Your task to perform on an android device: Is it going to rain tomorrow? Image 0: 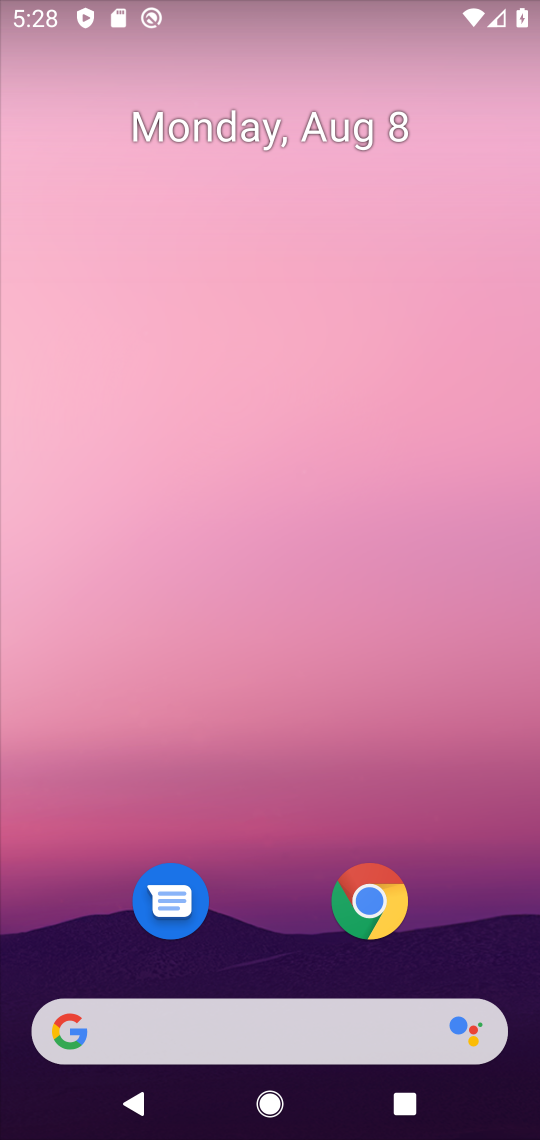
Step 0: click (380, 915)
Your task to perform on an android device: Is it going to rain tomorrow? Image 1: 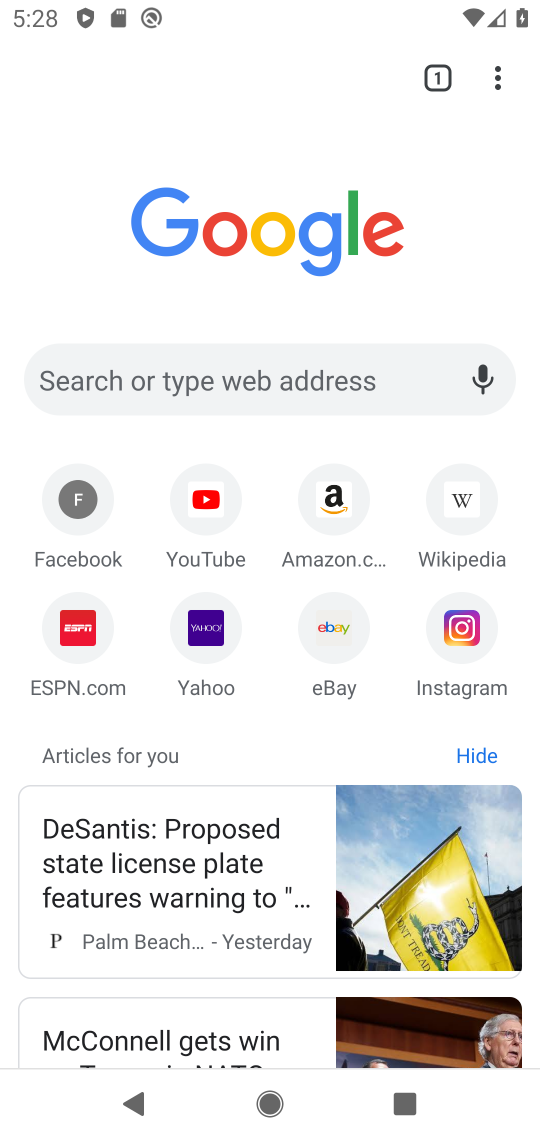
Step 1: click (90, 383)
Your task to perform on an android device: Is it going to rain tomorrow? Image 2: 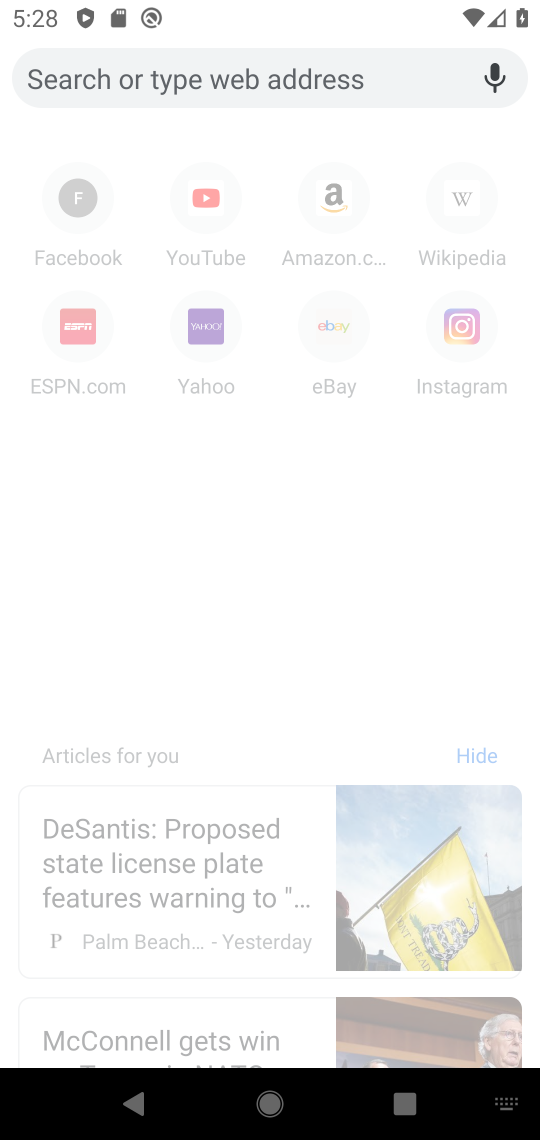
Step 2: type "Is it going to rain tomorrow?"
Your task to perform on an android device: Is it going to rain tomorrow? Image 3: 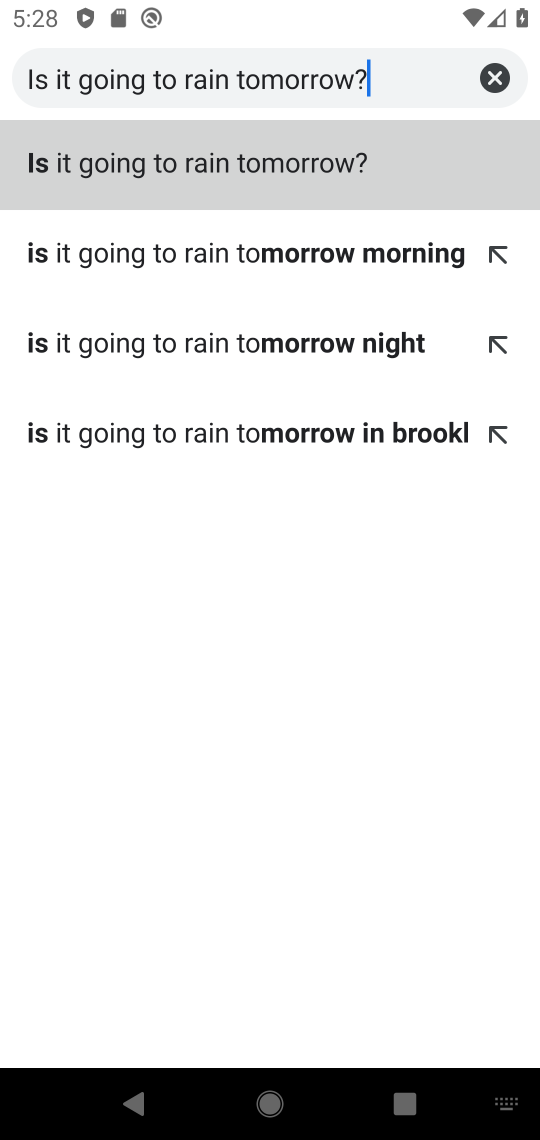
Step 3: click (299, 164)
Your task to perform on an android device: Is it going to rain tomorrow? Image 4: 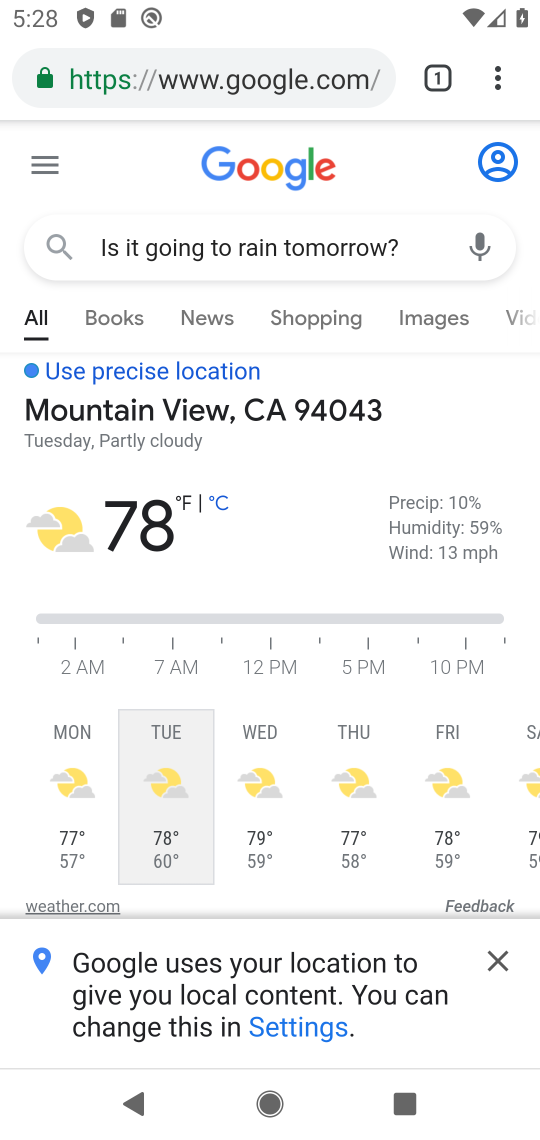
Step 4: task complete